Your task to perform on an android device: turn on sleep mode Image 0: 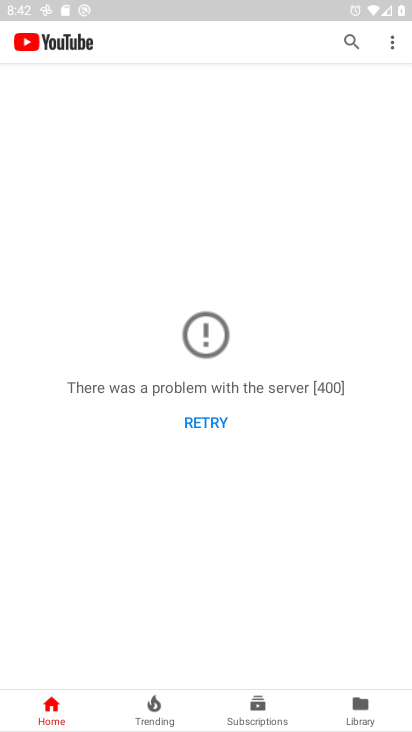
Step 0: press home button
Your task to perform on an android device: turn on sleep mode Image 1: 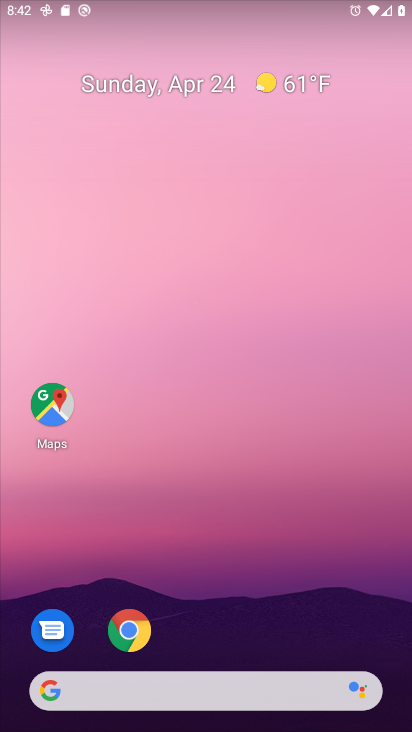
Step 1: drag from (335, 615) to (382, 80)
Your task to perform on an android device: turn on sleep mode Image 2: 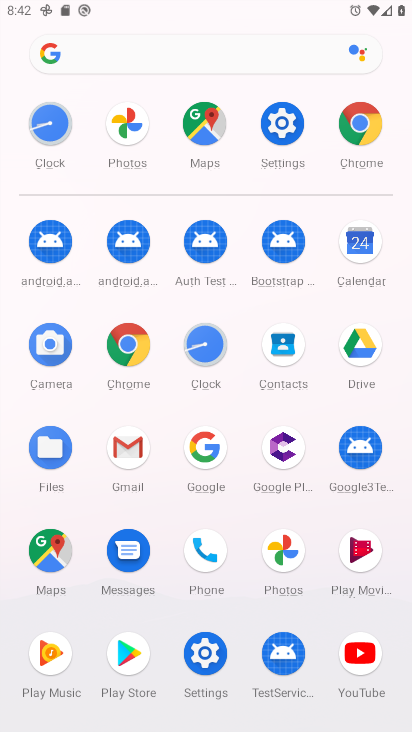
Step 2: click (286, 137)
Your task to perform on an android device: turn on sleep mode Image 3: 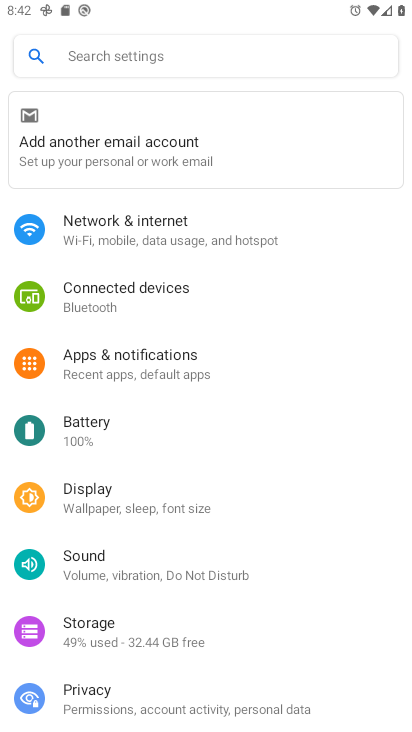
Step 3: drag from (327, 563) to (326, 393)
Your task to perform on an android device: turn on sleep mode Image 4: 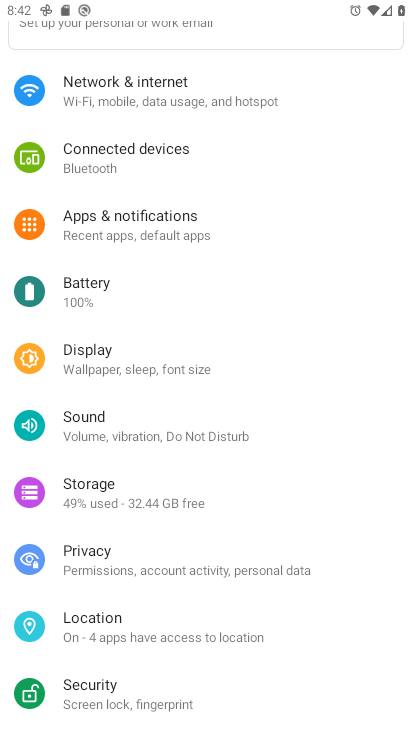
Step 4: drag from (332, 618) to (328, 379)
Your task to perform on an android device: turn on sleep mode Image 5: 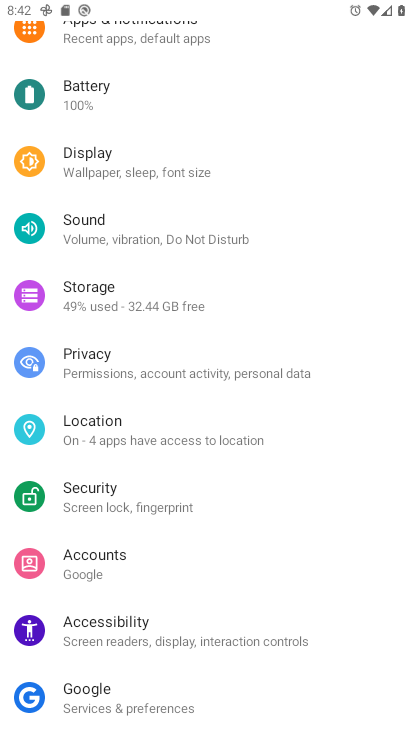
Step 5: drag from (336, 511) to (367, 344)
Your task to perform on an android device: turn on sleep mode Image 6: 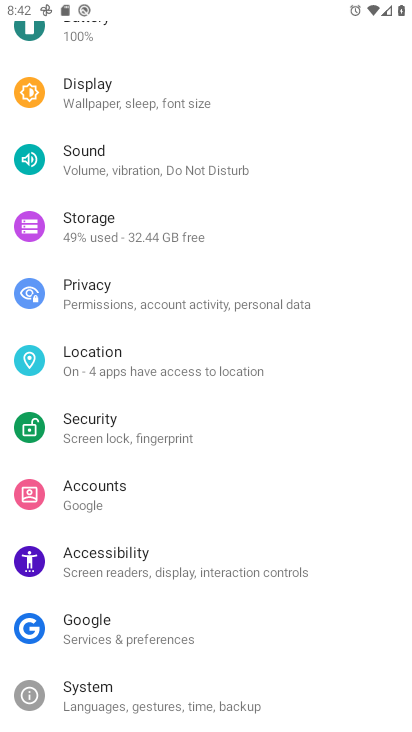
Step 6: drag from (359, 297) to (366, 449)
Your task to perform on an android device: turn on sleep mode Image 7: 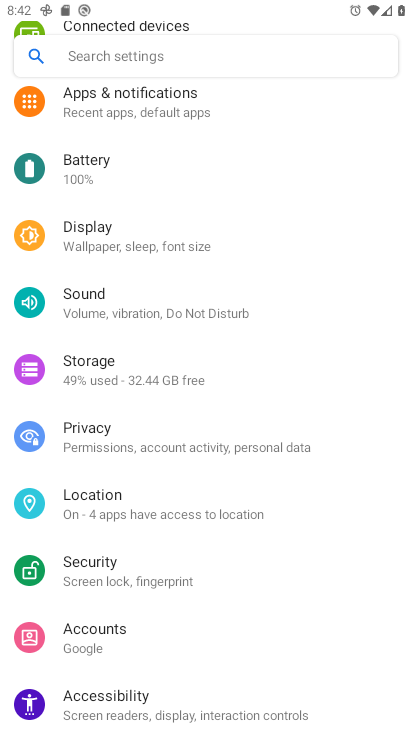
Step 7: drag from (349, 370) to (330, 506)
Your task to perform on an android device: turn on sleep mode Image 8: 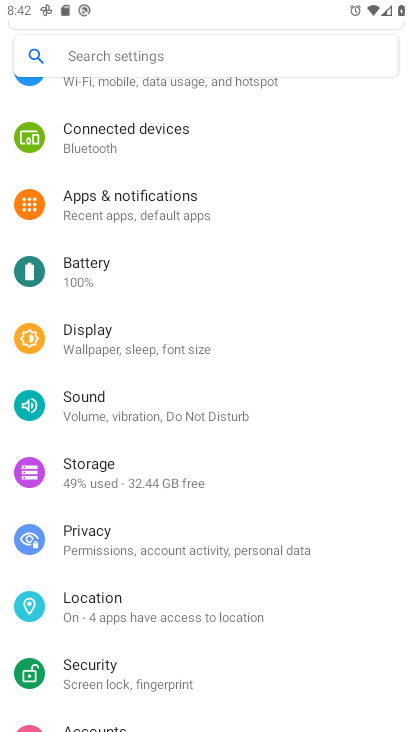
Step 8: drag from (354, 296) to (355, 505)
Your task to perform on an android device: turn on sleep mode Image 9: 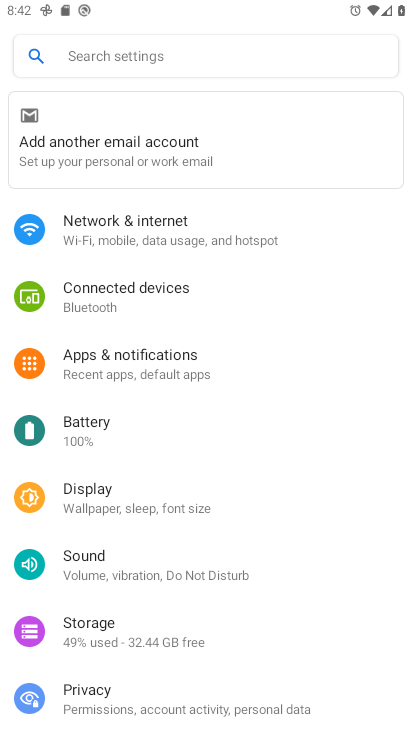
Step 9: click (152, 516)
Your task to perform on an android device: turn on sleep mode Image 10: 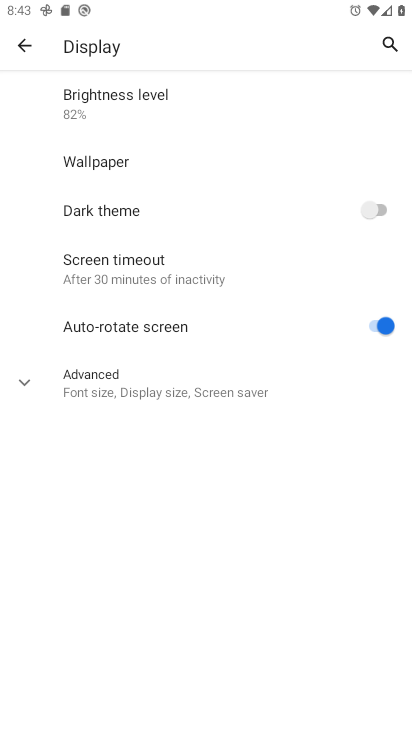
Step 10: click (226, 412)
Your task to perform on an android device: turn on sleep mode Image 11: 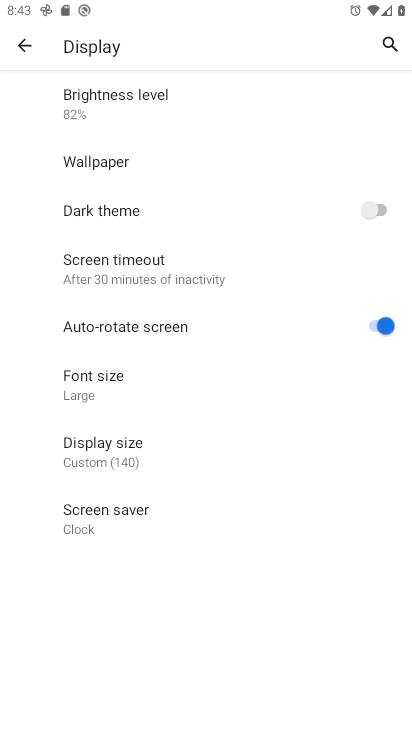
Step 11: task complete